Your task to perform on an android device: change the upload size in google photos Image 0: 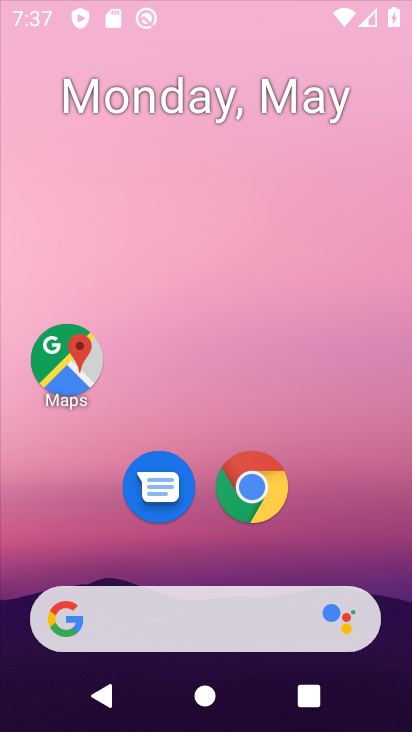
Step 0: click (71, 354)
Your task to perform on an android device: change the upload size in google photos Image 1: 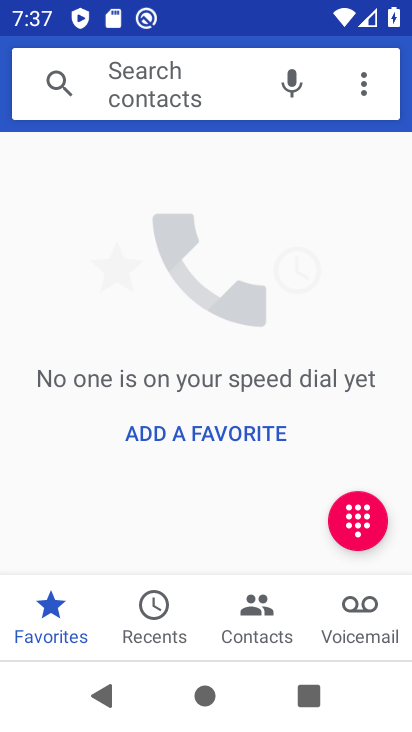
Step 1: press home button
Your task to perform on an android device: change the upload size in google photos Image 2: 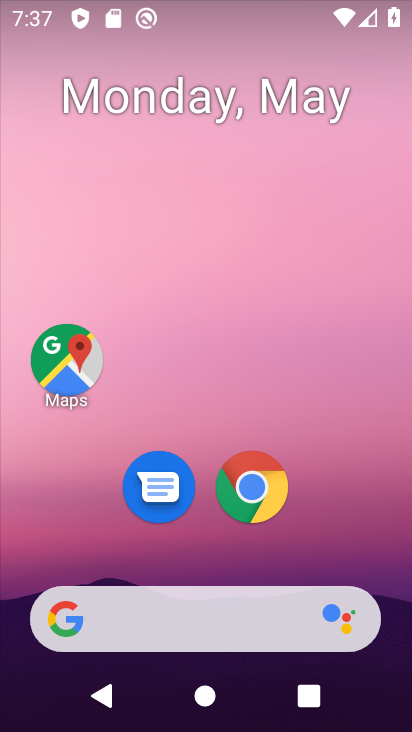
Step 2: drag from (174, 594) to (178, 114)
Your task to perform on an android device: change the upload size in google photos Image 3: 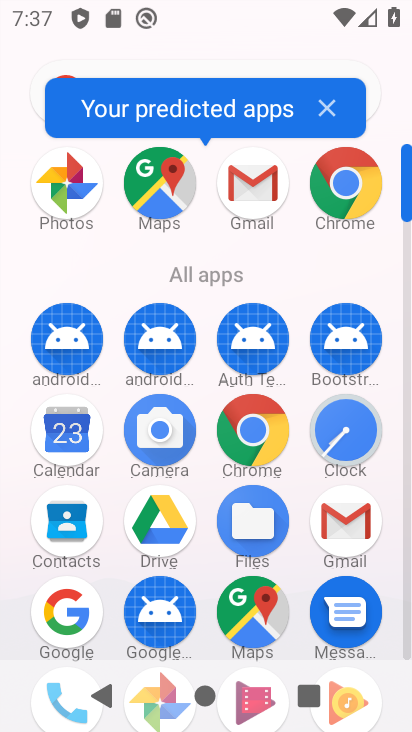
Step 3: drag from (196, 648) to (204, 237)
Your task to perform on an android device: change the upload size in google photos Image 4: 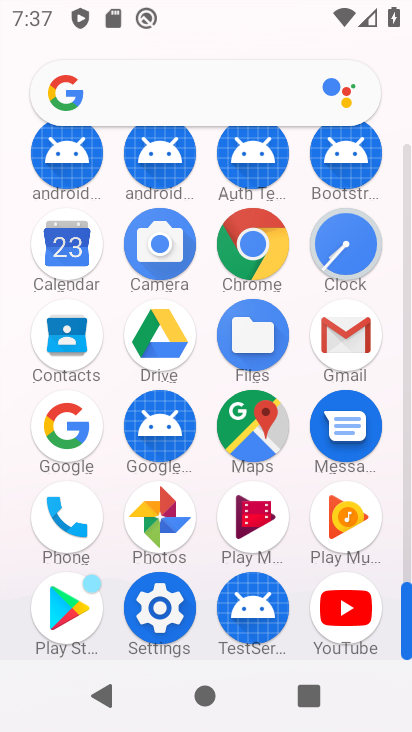
Step 4: click (157, 521)
Your task to perform on an android device: change the upload size in google photos Image 5: 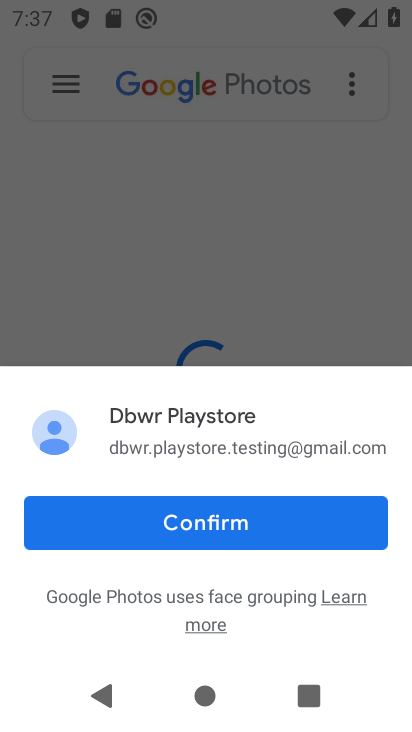
Step 5: click (60, 85)
Your task to perform on an android device: change the upload size in google photos Image 6: 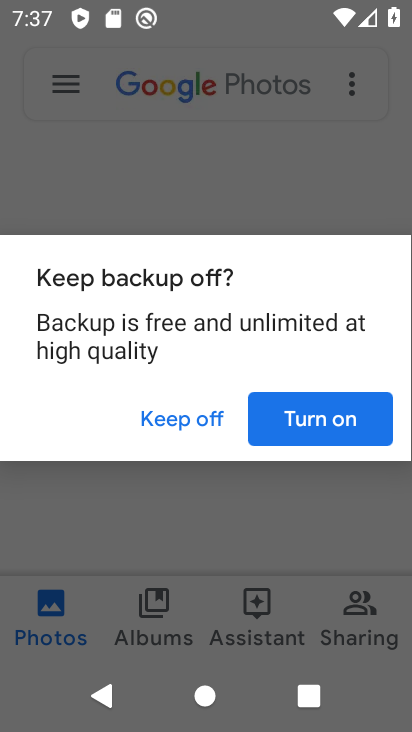
Step 6: click (191, 532)
Your task to perform on an android device: change the upload size in google photos Image 7: 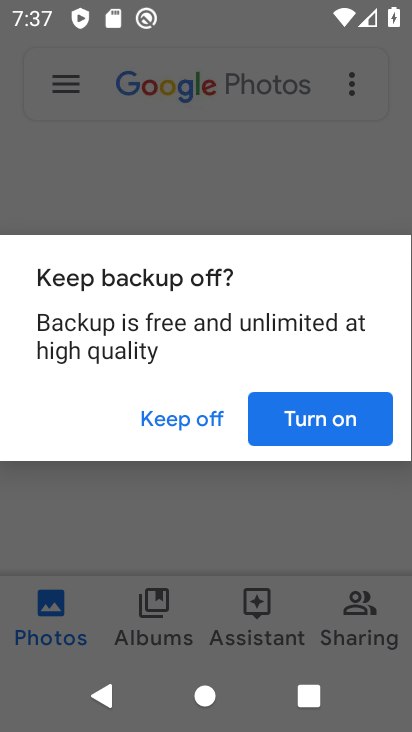
Step 7: click (311, 431)
Your task to perform on an android device: change the upload size in google photos Image 8: 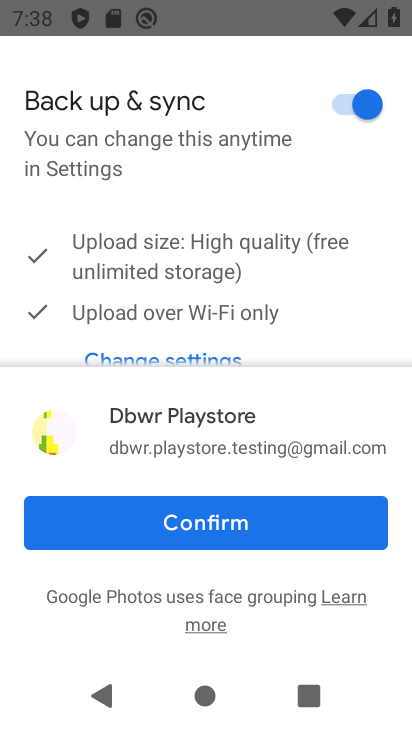
Step 8: click (183, 528)
Your task to perform on an android device: change the upload size in google photos Image 9: 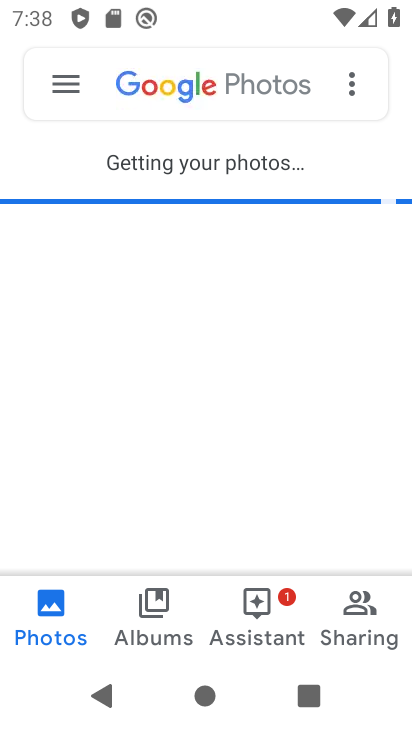
Step 9: click (62, 82)
Your task to perform on an android device: change the upload size in google photos Image 10: 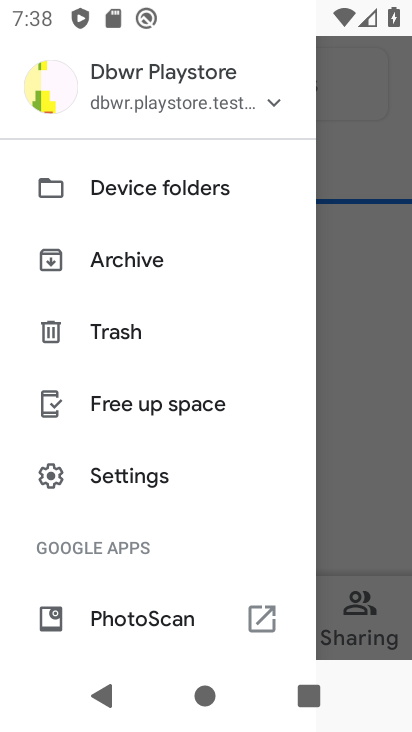
Step 10: click (107, 477)
Your task to perform on an android device: change the upload size in google photos Image 11: 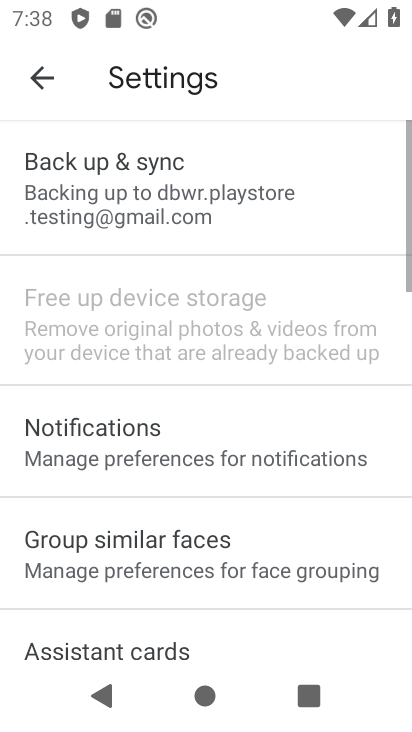
Step 11: click (89, 197)
Your task to perform on an android device: change the upload size in google photos Image 12: 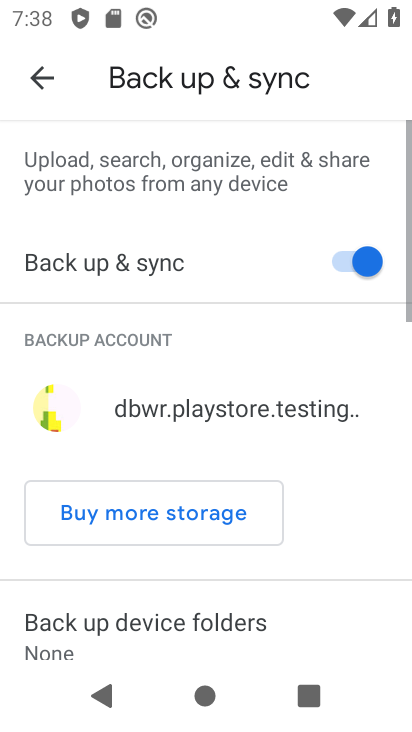
Step 12: drag from (104, 612) to (98, 261)
Your task to perform on an android device: change the upload size in google photos Image 13: 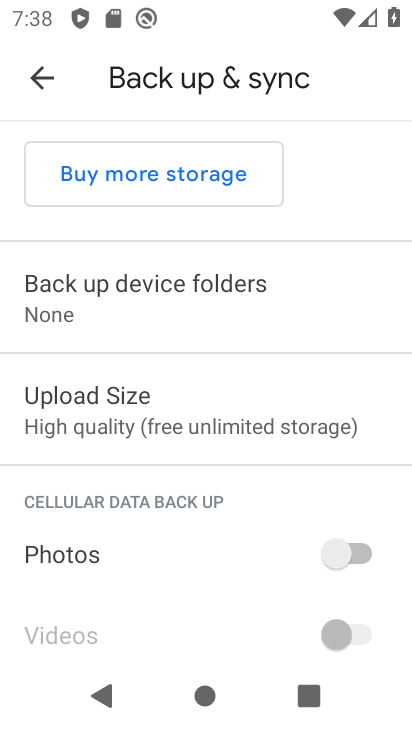
Step 13: click (52, 401)
Your task to perform on an android device: change the upload size in google photos Image 14: 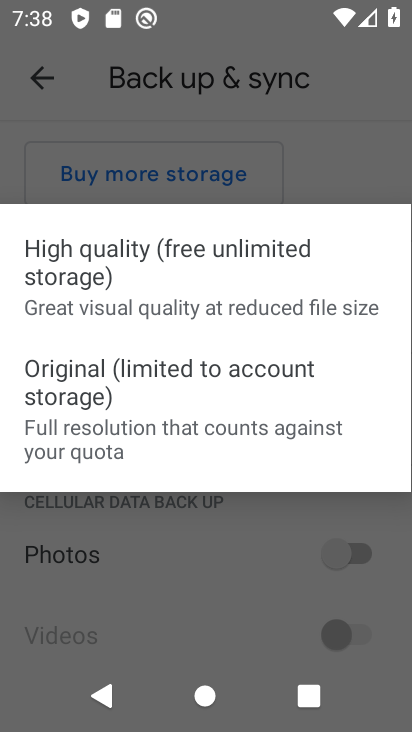
Step 14: click (51, 394)
Your task to perform on an android device: change the upload size in google photos Image 15: 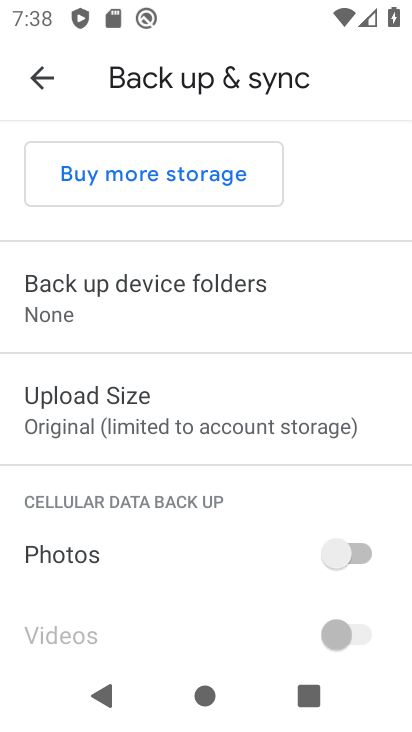
Step 15: task complete